Your task to perform on an android device: Open the stopwatch Image 0: 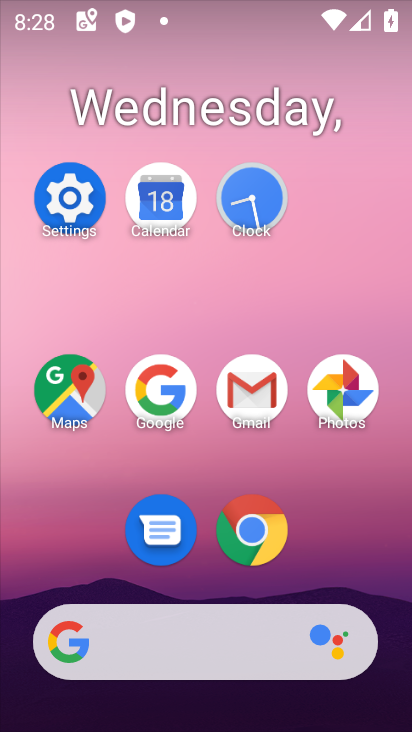
Step 0: click (260, 191)
Your task to perform on an android device: Open the stopwatch Image 1: 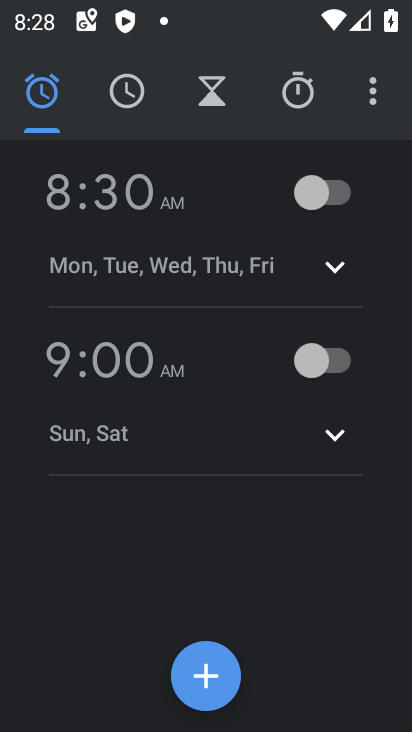
Step 1: click (285, 94)
Your task to perform on an android device: Open the stopwatch Image 2: 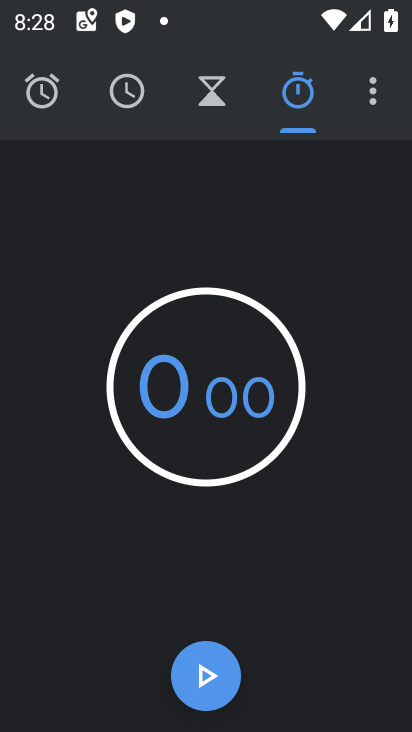
Step 2: task complete